Your task to perform on an android device: Search for "razer huntsman" on bestbuy.com, select the first entry, and add it to the cart. Image 0: 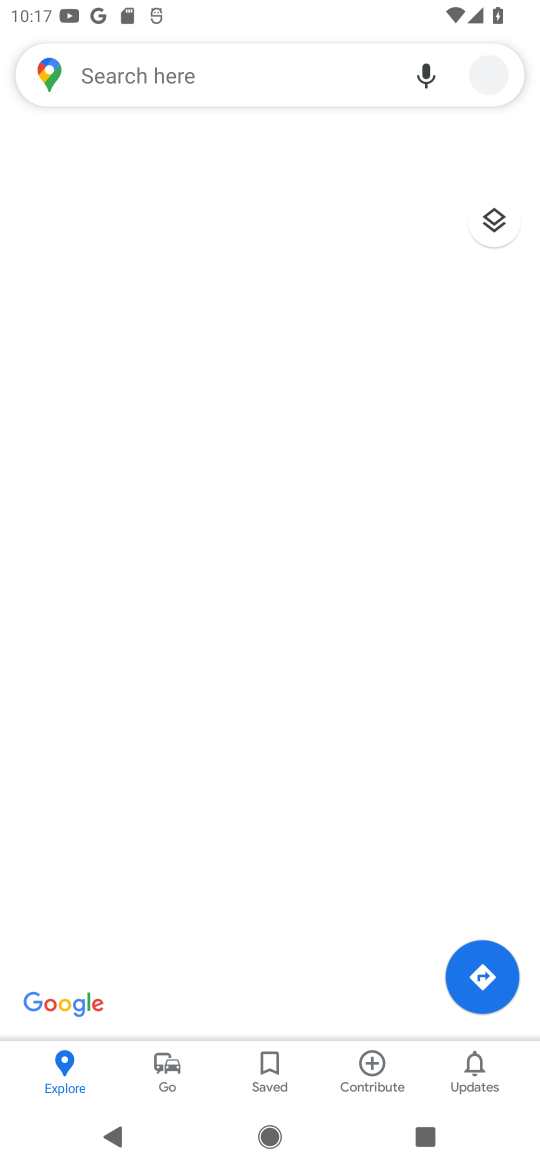
Step 0: press home button
Your task to perform on an android device: Search for "razer huntsman" on bestbuy.com, select the first entry, and add it to the cart. Image 1: 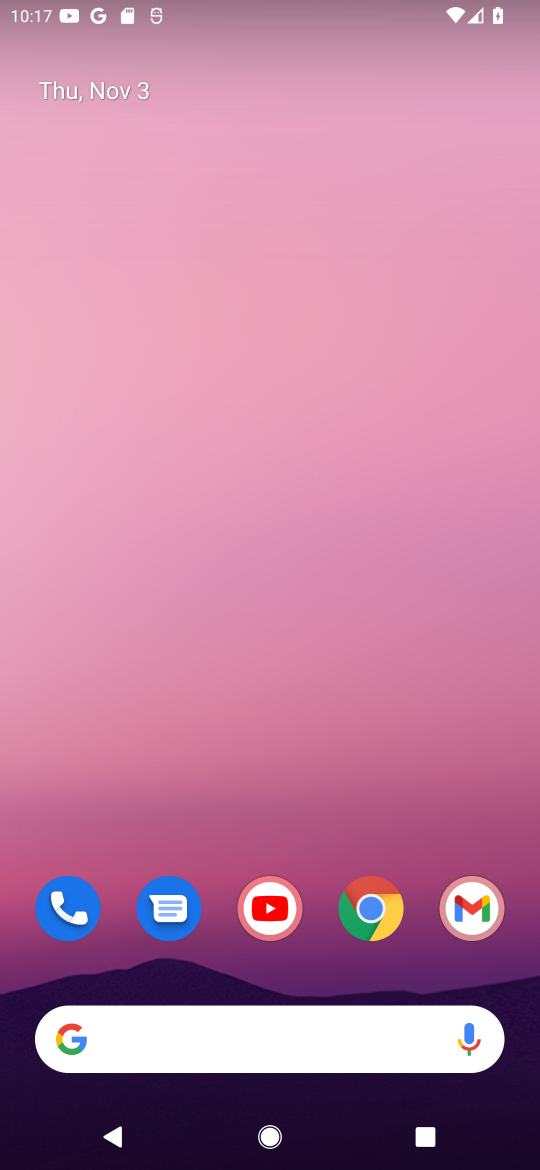
Step 1: click (374, 919)
Your task to perform on an android device: Search for "razer huntsman" on bestbuy.com, select the first entry, and add it to the cart. Image 2: 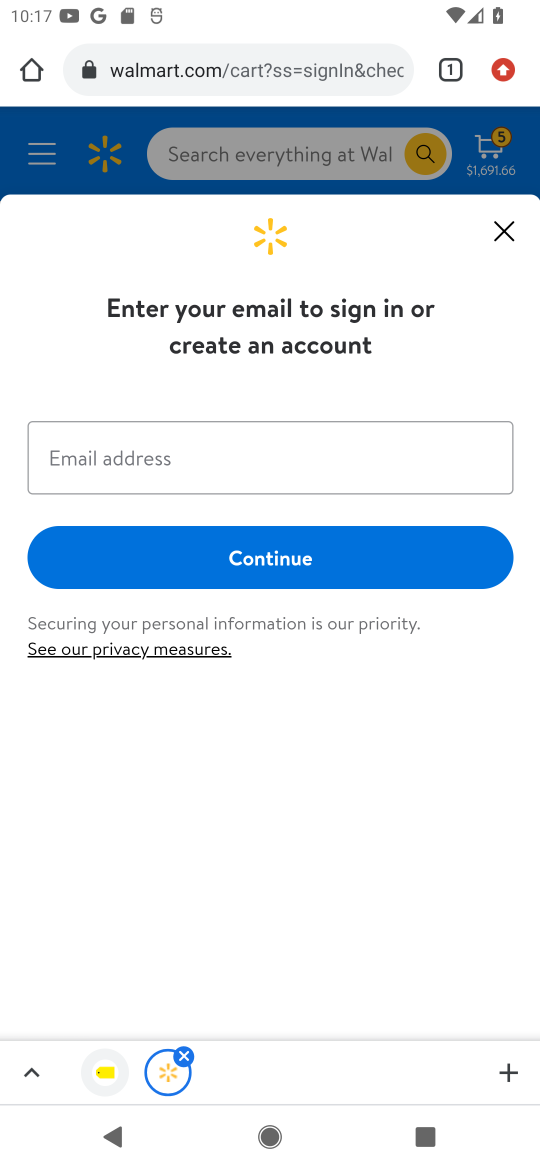
Step 2: click (39, 68)
Your task to perform on an android device: Search for "razer huntsman" on bestbuy.com, select the first entry, and add it to the cart. Image 3: 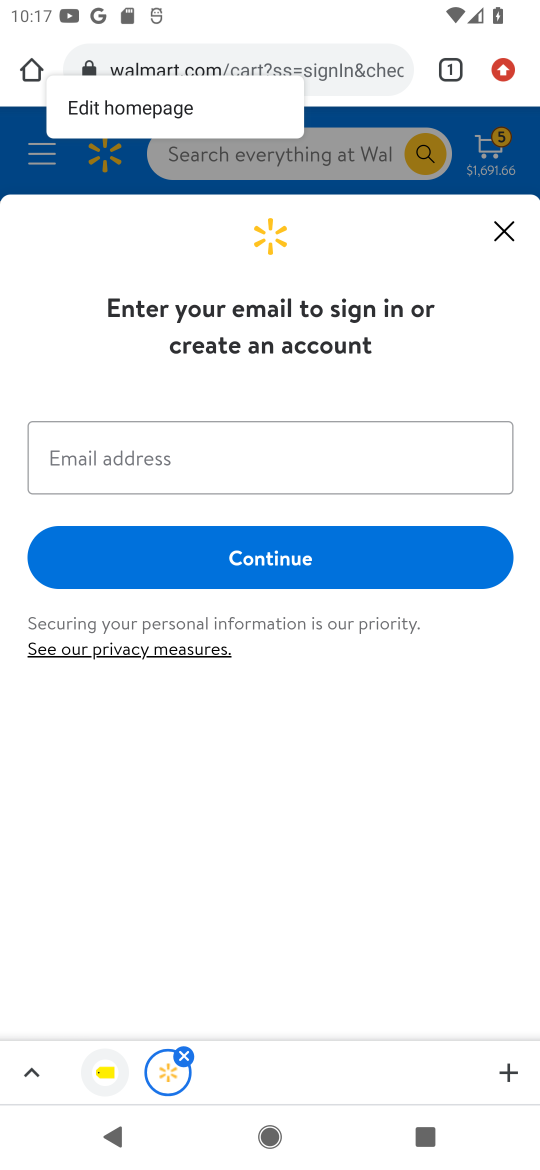
Step 3: click (32, 77)
Your task to perform on an android device: Search for "razer huntsman" on bestbuy.com, select the first entry, and add it to the cart. Image 4: 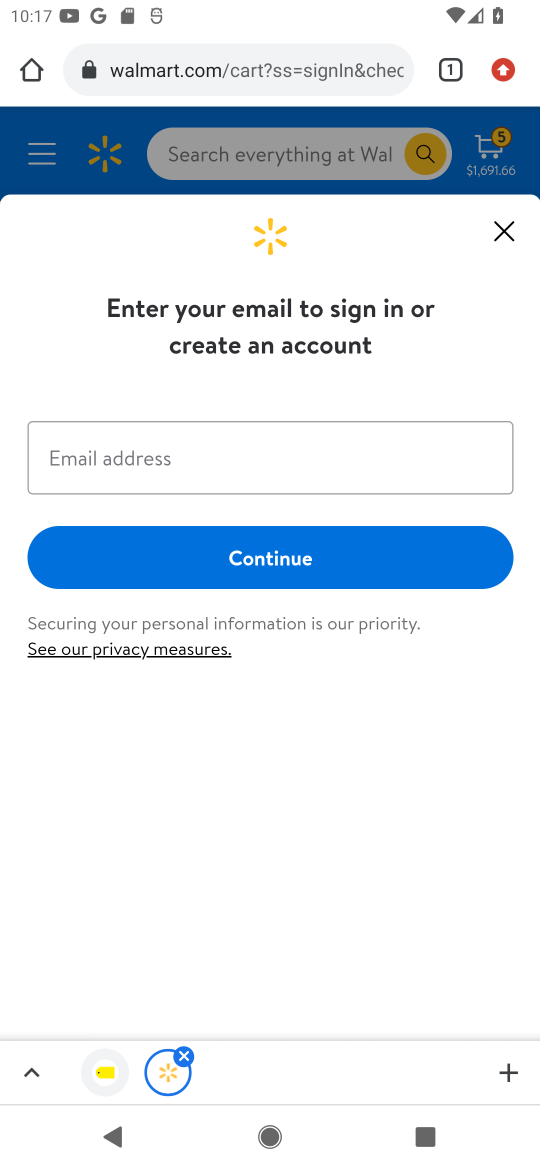
Step 4: click (32, 77)
Your task to perform on an android device: Search for "razer huntsman" on bestbuy.com, select the first entry, and add it to the cart. Image 5: 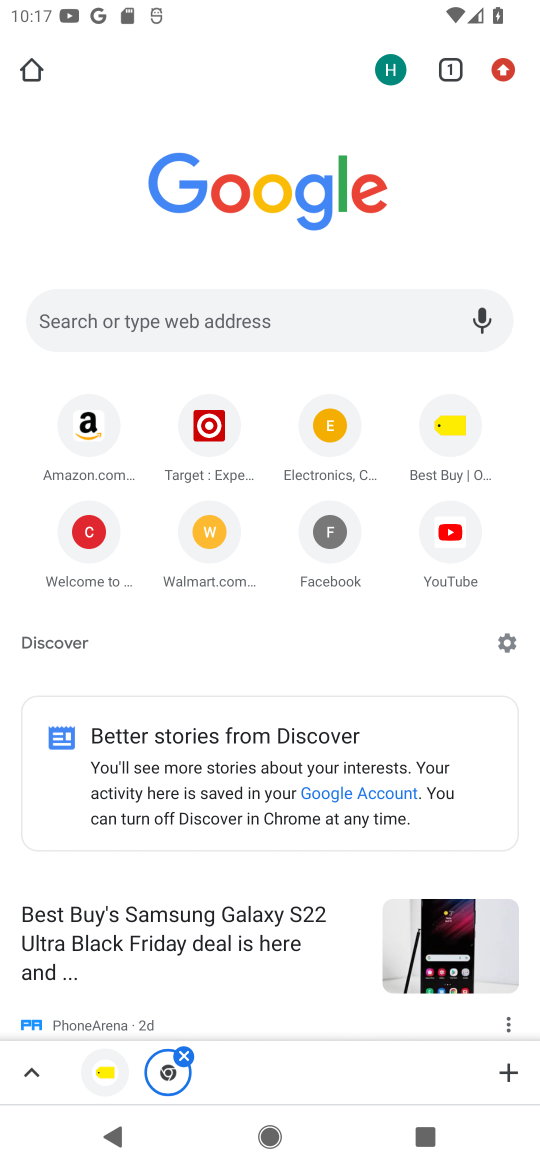
Step 5: click (350, 309)
Your task to perform on an android device: Search for "razer huntsman" on bestbuy.com, select the first entry, and add it to the cart. Image 6: 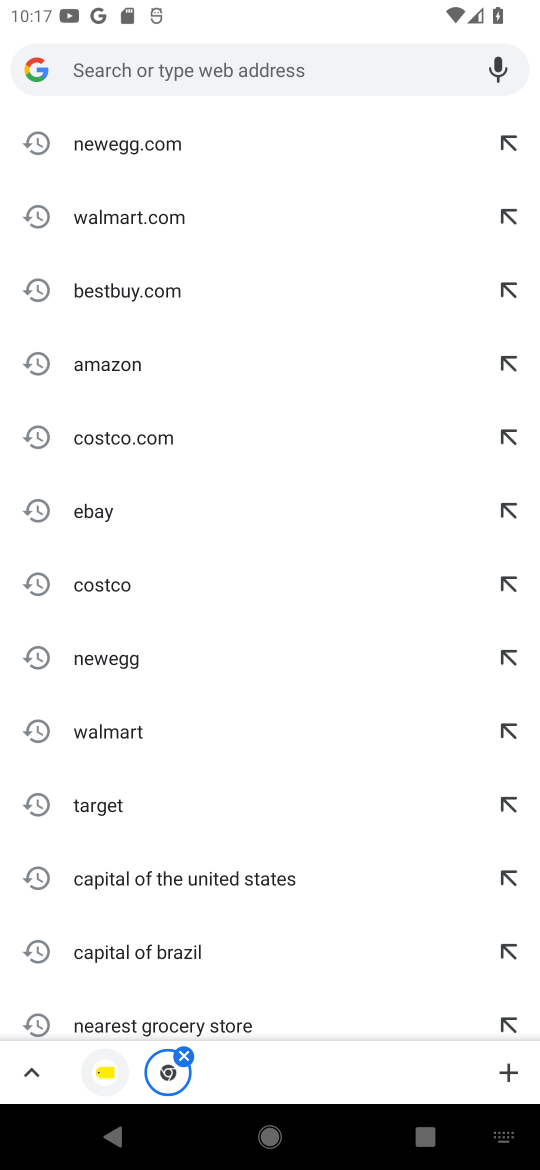
Step 6: click (154, 293)
Your task to perform on an android device: Search for "razer huntsman" on bestbuy.com, select the first entry, and add it to the cart. Image 7: 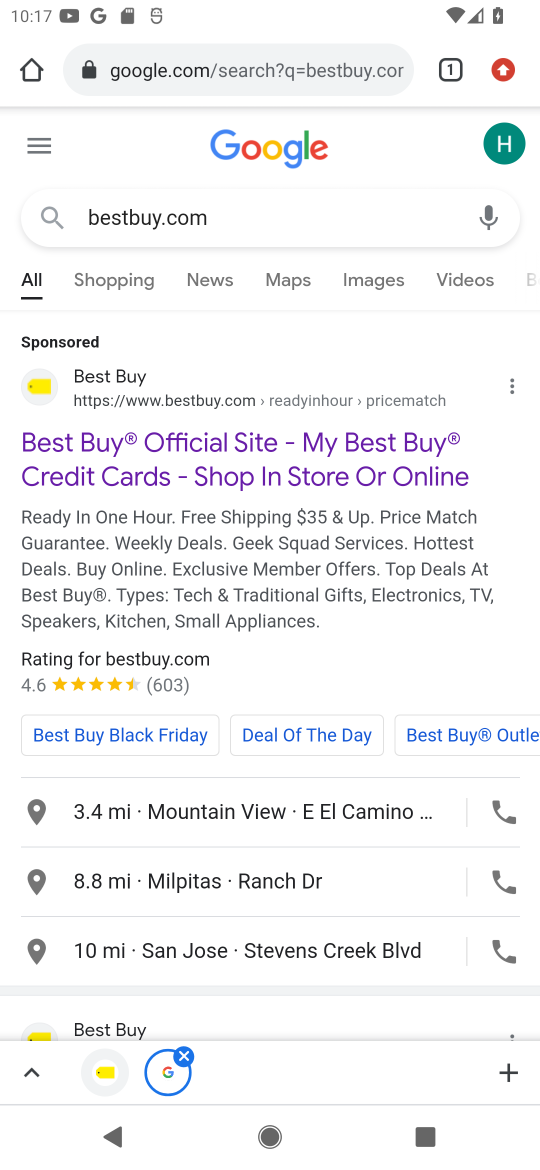
Step 7: click (139, 390)
Your task to perform on an android device: Search for "razer huntsman" on bestbuy.com, select the first entry, and add it to the cart. Image 8: 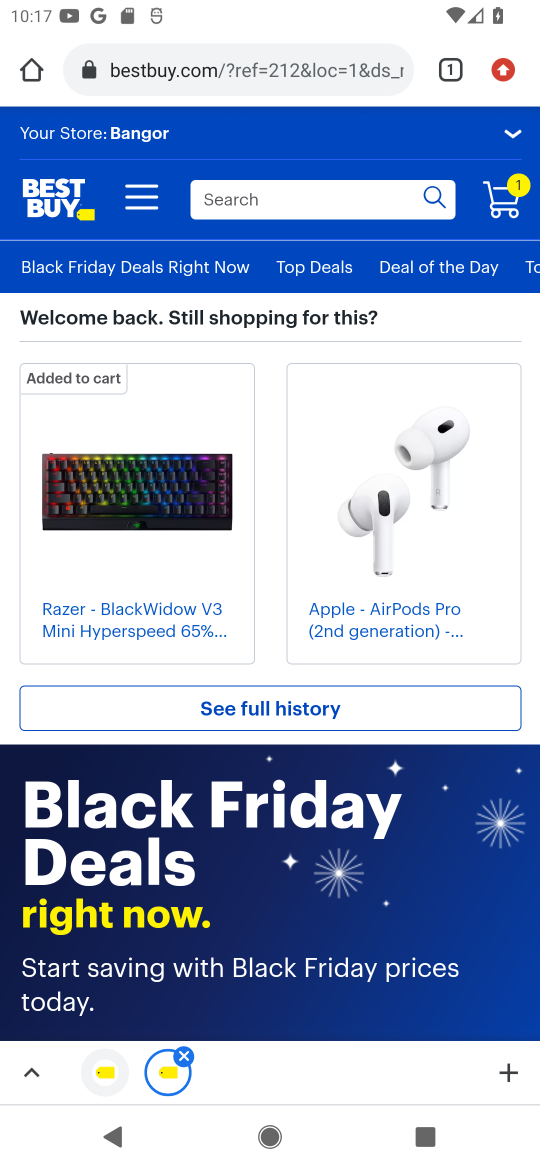
Step 8: click (309, 189)
Your task to perform on an android device: Search for "razer huntsman" on bestbuy.com, select the first entry, and add it to the cart. Image 9: 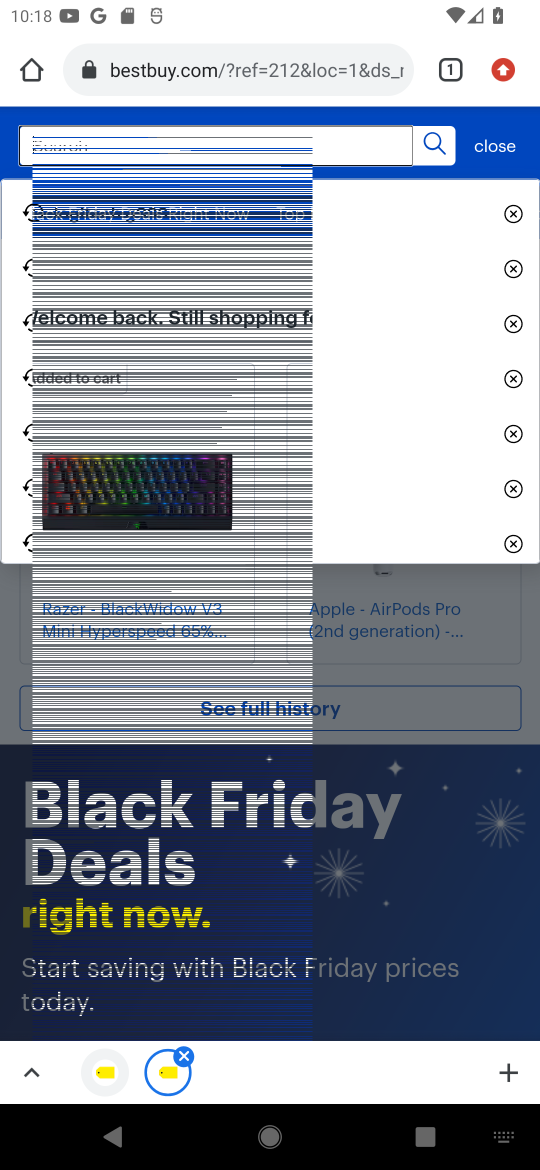
Step 9: click (294, 135)
Your task to perform on an android device: Search for "razer huntsman" on bestbuy.com, select the first entry, and add it to the cart. Image 10: 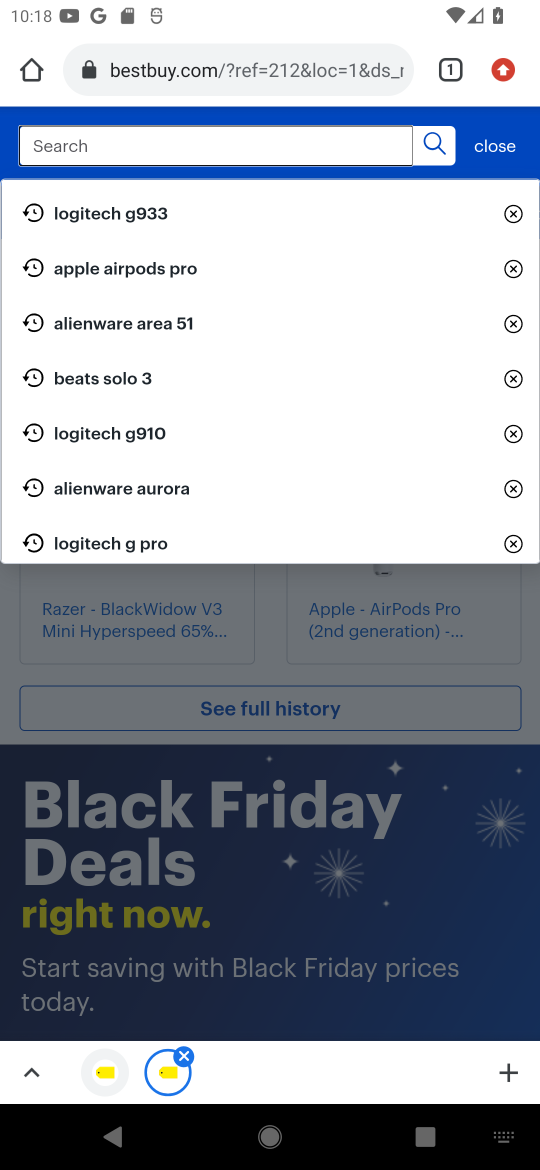
Step 10: type "razer huntsman"
Your task to perform on an android device: Search for "razer huntsman" on bestbuy.com, select the first entry, and add it to the cart. Image 11: 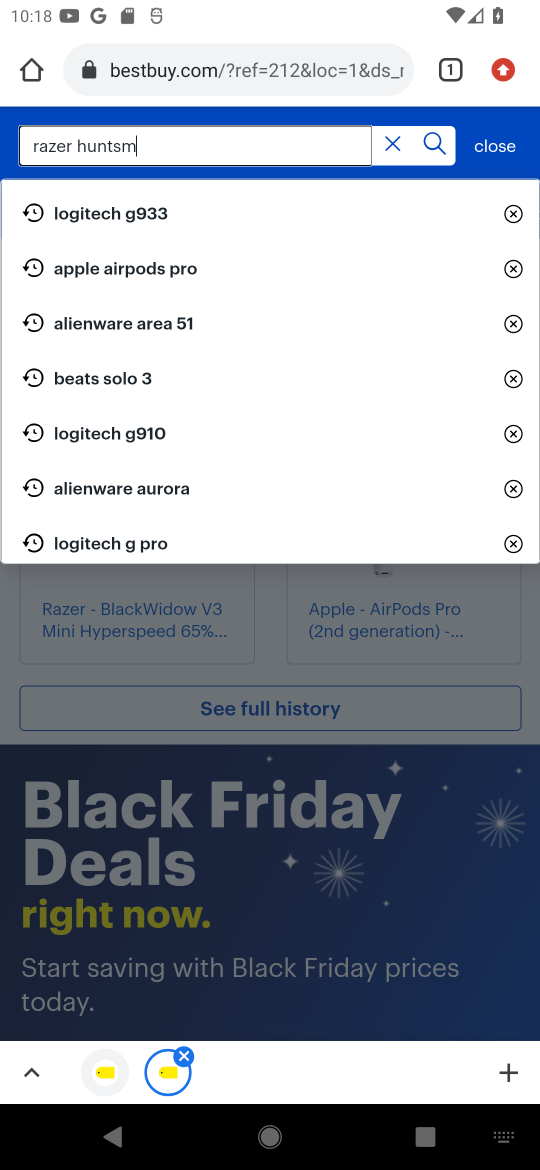
Step 11: press enter
Your task to perform on an android device: Search for "razer huntsman" on bestbuy.com, select the first entry, and add it to the cart. Image 12: 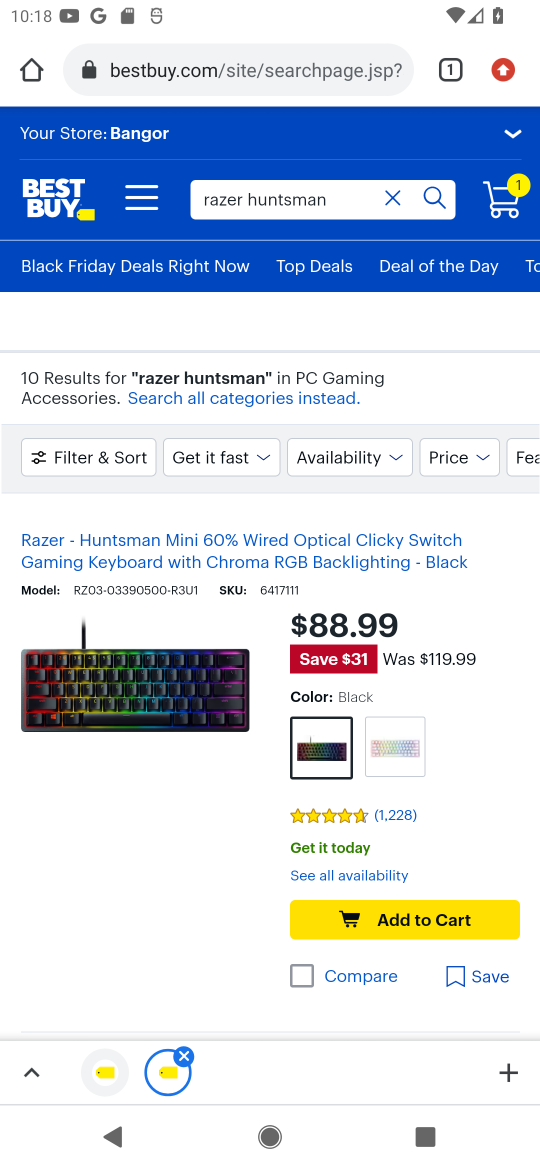
Step 12: click (206, 788)
Your task to perform on an android device: Search for "razer huntsman" on bestbuy.com, select the first entry, and add it to the cart. Image 13: 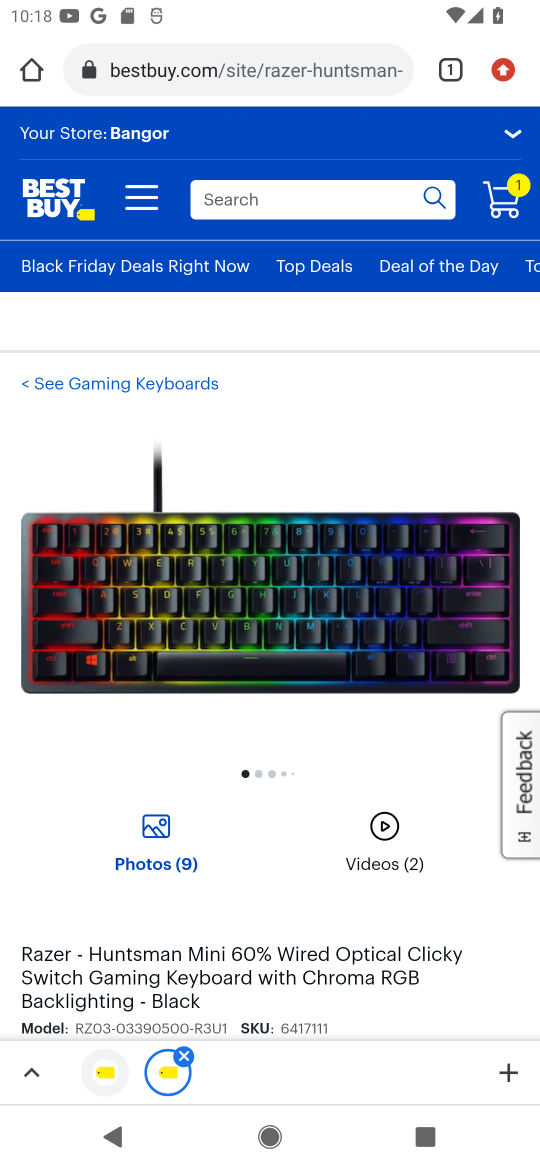
Step 13: drag from (369, 742) to (359, 526)
Your task to perform on an android device: Search for "razer huntsman" on bestbuy.com, select the first entry, and add it to the cart. Image 14: 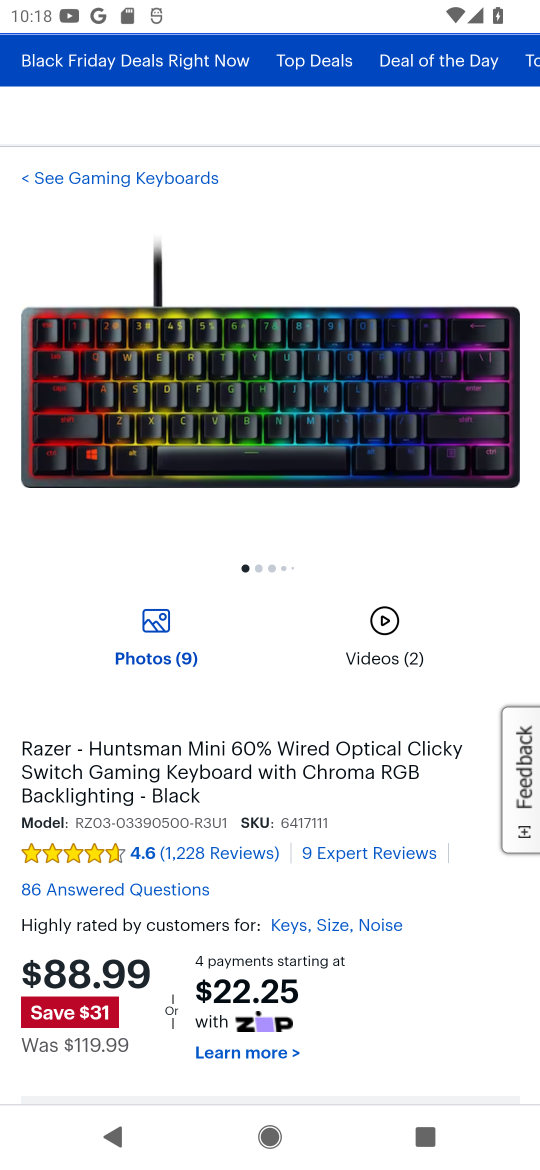
Step 14: drag from (390, 828) to (349, 547)
Your task to perform on an android device: Search for "razer huntsman" on bestbuy.com, select the first entry, and add it to the cart. Image 15: 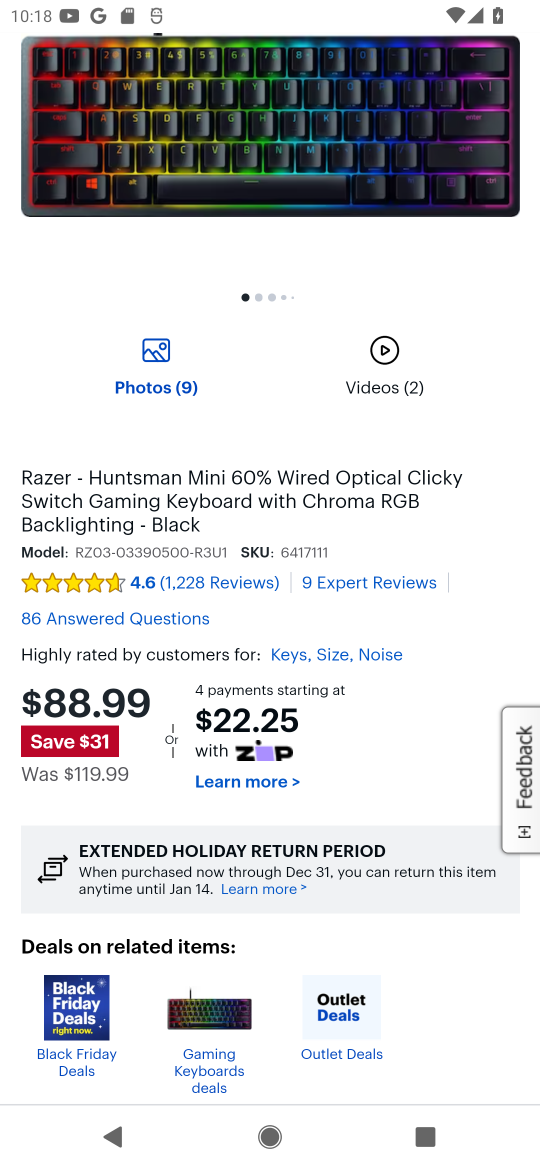
Step 15: drag from (412, 916) to (386, 521)
Your task to perform on an android device: Search for "razer huntsman" on bestbuy.com, select the first entry, and add it to the cart. Image 16: 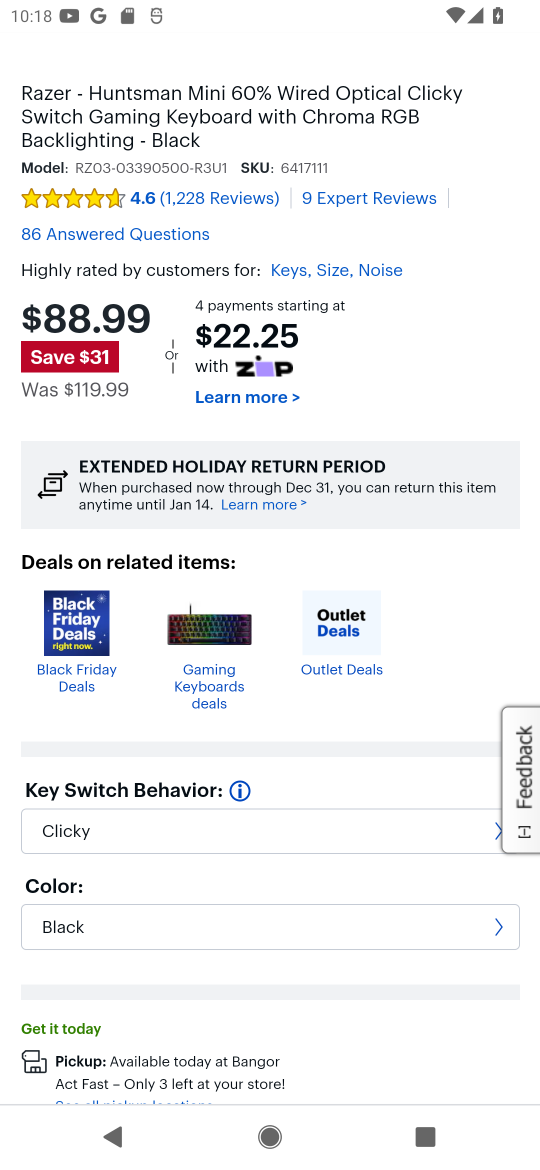
Step 16: drag from (422, 833) to (389, 467)
Your task to perform on an android device: Search for "razer huntsman" on bestbuy.com, select the first entry, and add it to the cart. Image 17: 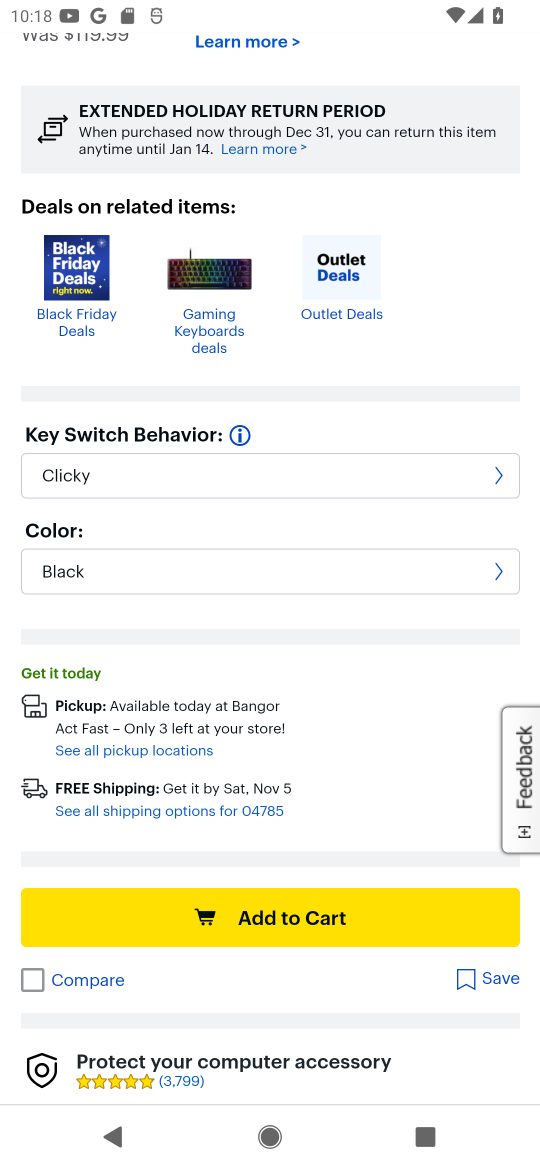
Step 17: click (342, 911)
Your task to perform on an android device: Search for "razer huntsman" on bestbuy.com, select the first entry, and add it to the cart. Image 18: 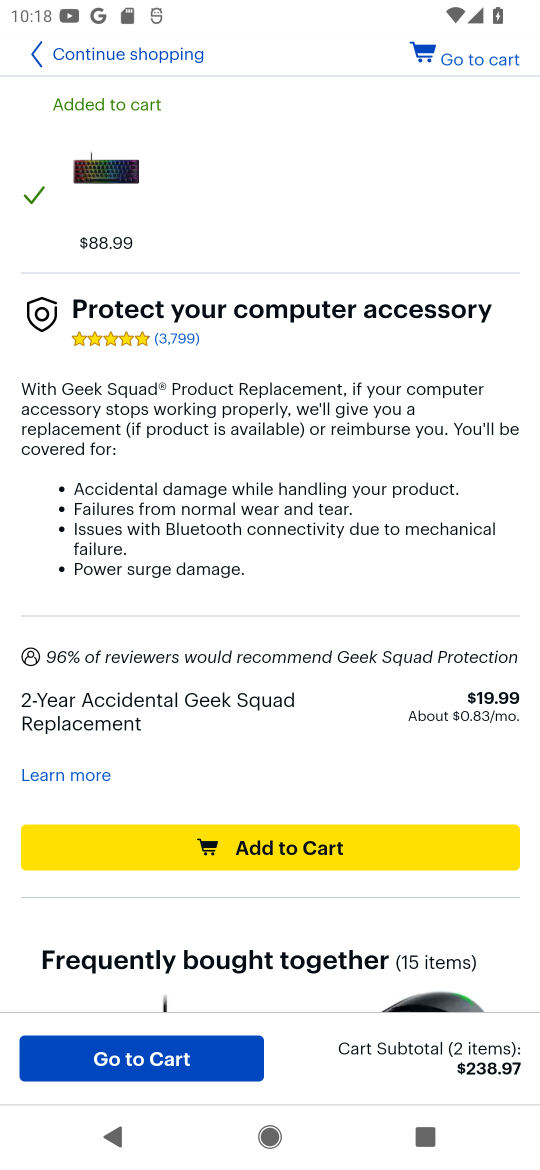
Step 18: task complete